Your task to perform on an android device: turn off notifications settings in the gmail app Image 0: 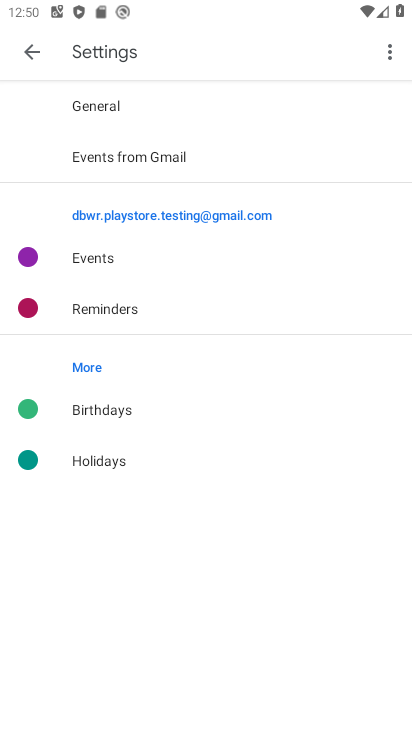
Step 0: press home button
Your task to perform on an android device: turn off notifications settings in the gmail app Image 1: 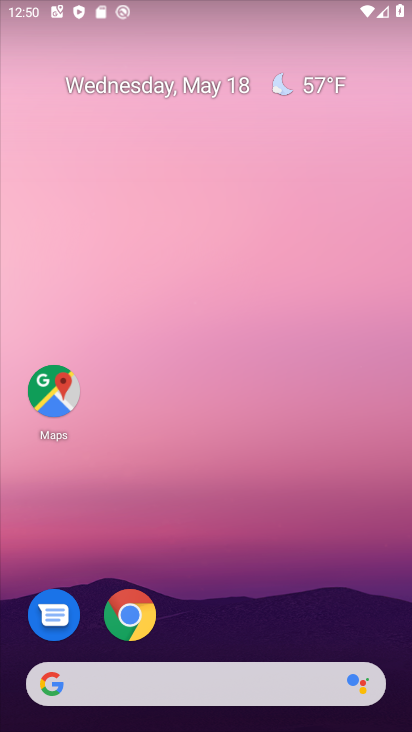
Step 1: drag from (371, 645) to (305, 21)
Your task to perform on an android device: turn off notifications settings in the gmail app Image 2: 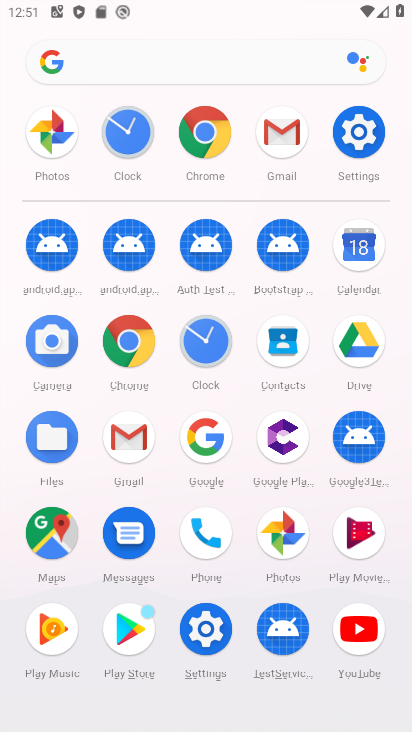
Step 2: click (276, 145)
Your task to perform on an android device: turn off notifications settings in the gmail app Image 3: 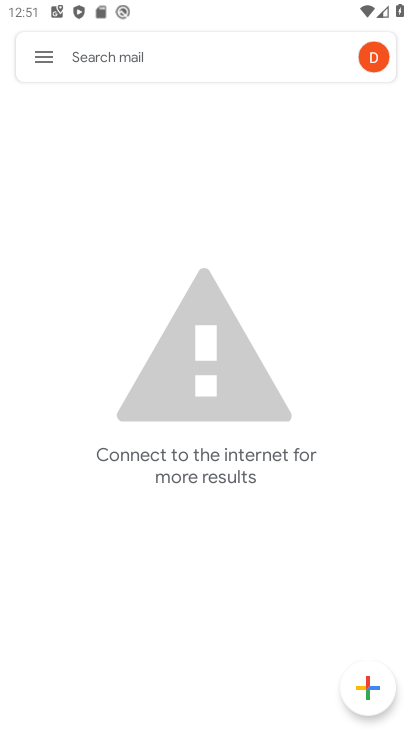
Step 3: click (33, 59)
Your task to perform on an android device: turn off notifications settings in the gmail app Image 4: 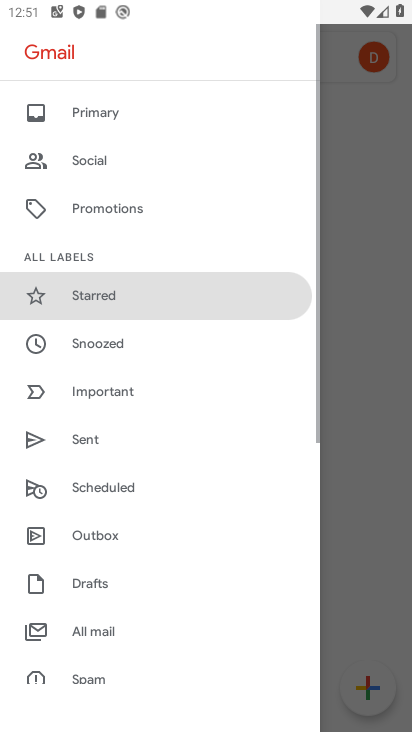
Step 4: drag from (88, 657) to (177, 13)
Your task to perform on an android device: turn off notifications settings in the gmail app Image 5: 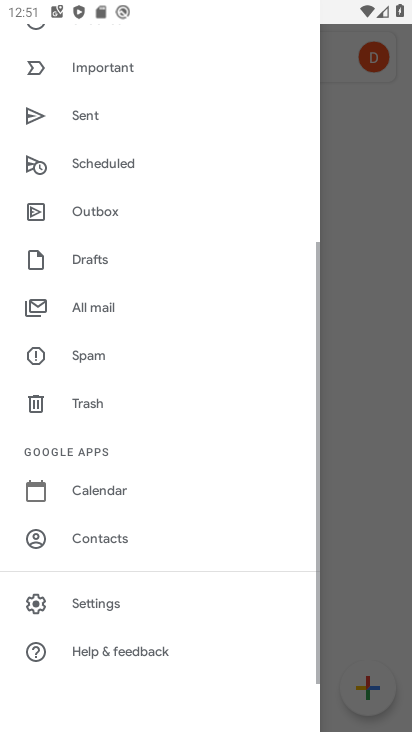
Step 5: click (136, 602)
Your task to perform on an android device: turn off notifications settings in the gmail app Image 6: 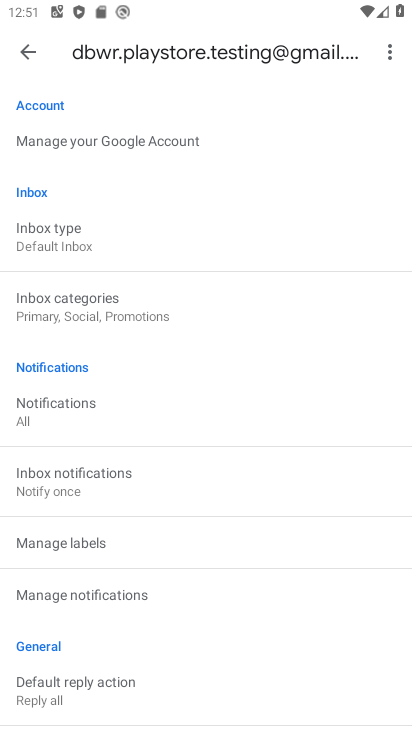
Step 6: click (100, 418)
Your task to perform on an android device: turn off notifications settings in the gmail app Image 7: 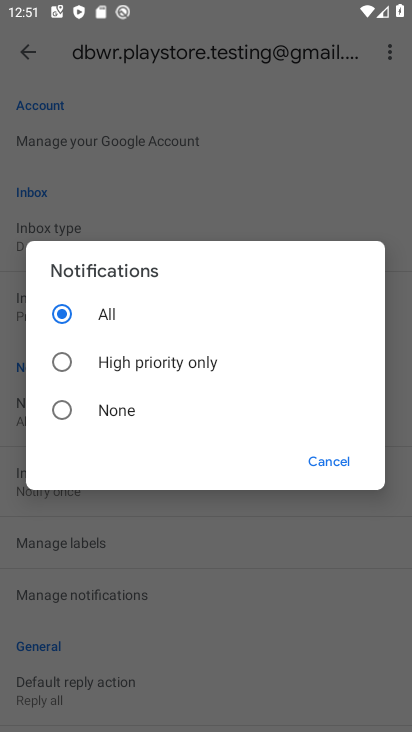
Step 7: click (79, 407)
Your task to perform on an android device: turn off notifications settings in the gmail app Image 8: 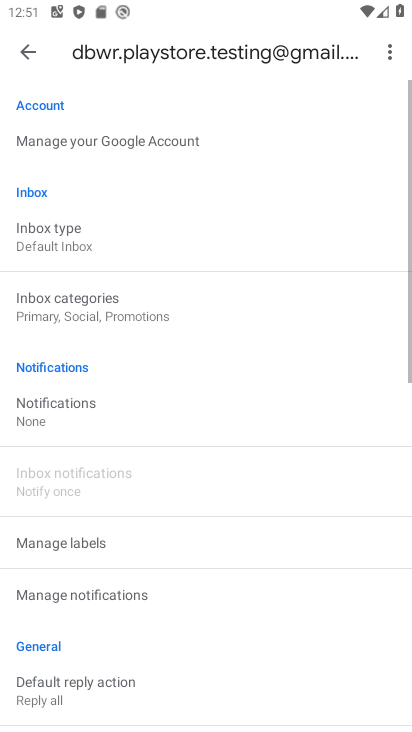
Step 8: task complete